Your task to perform on an android device: turn notification dots on Image 0: 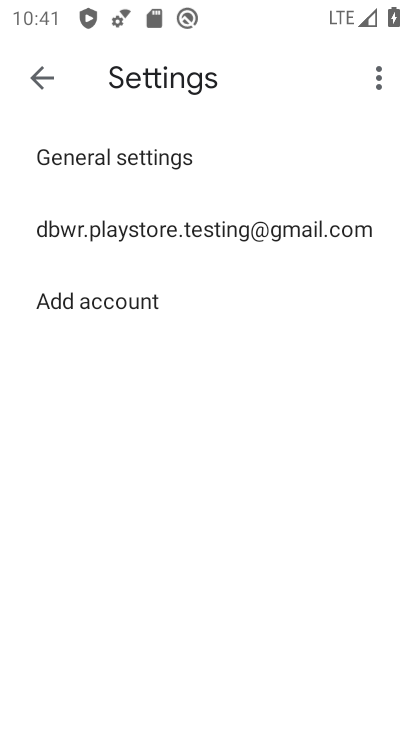
Step 0: press home button
Your task to perform on an android device: turn notification dots on Image 1: 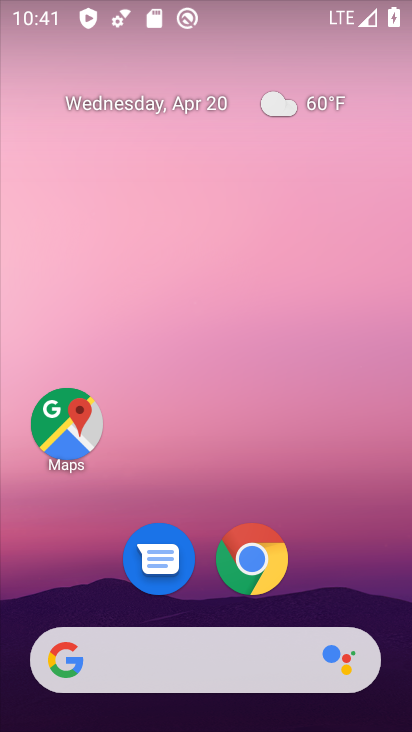
Step 1: drag from (209, 712) to (212, 33)
Your task to perform on an android device: turn notification dots on Image 2: 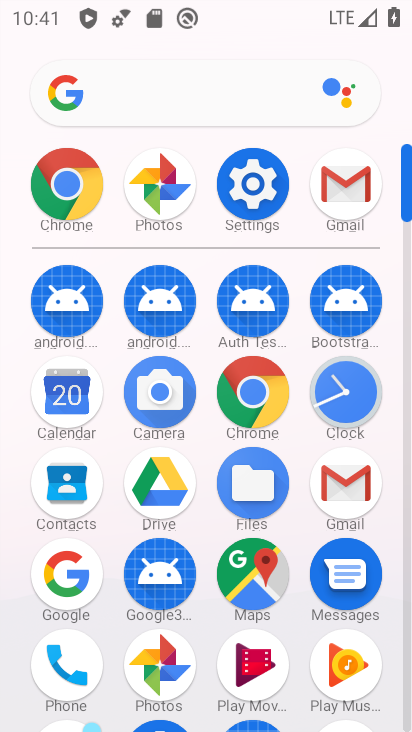
Step 2: click (252, 184)
Your task to perform on an android device: turn notification dots on Image 3: 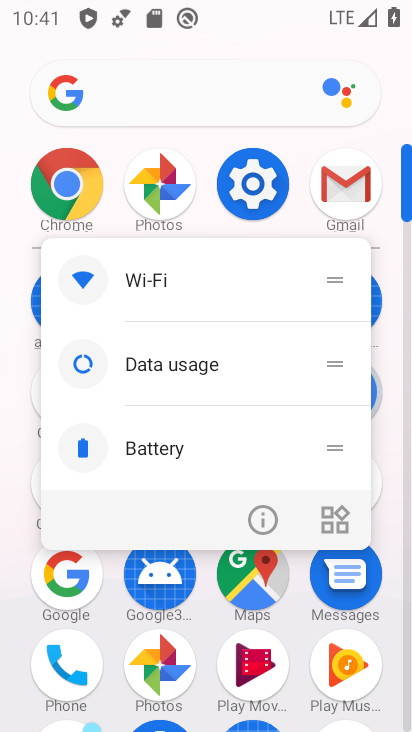
Step 3: click (253, 176)
Your task to perform on an android device: turn notification dots on Image 4: 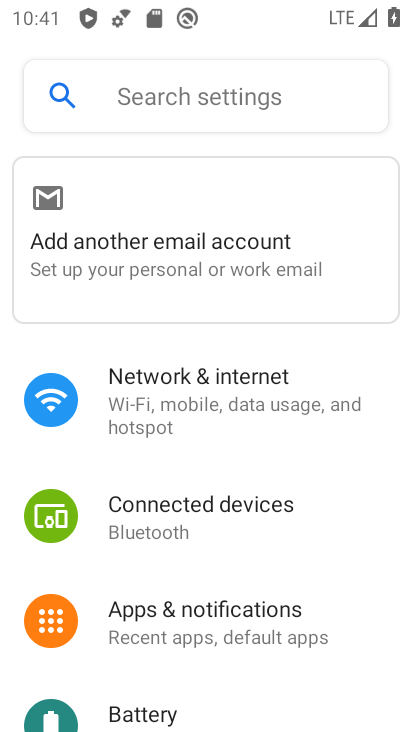
Step 4: click (210, 617)
Your task to perform on an android device: turn notification dots on Image 5: 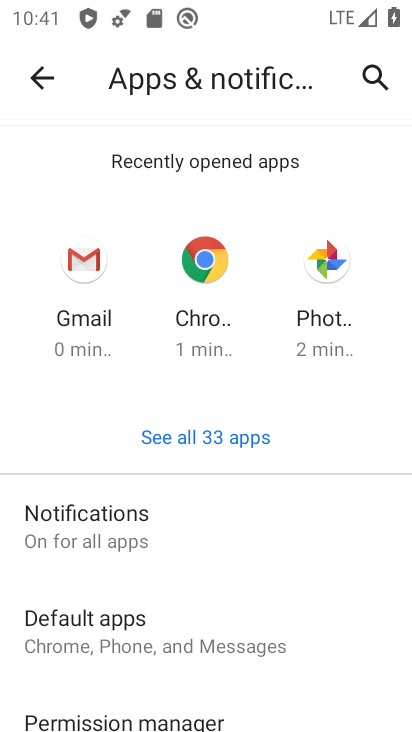
Step 5: click (106, 520)
Your task to perform on an android device: turn notification dots on Image 6: 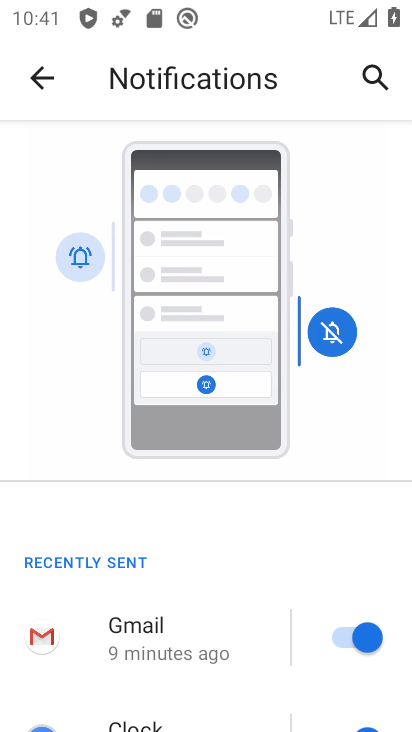
Step 6: drag from (206, 667) to (204, 257)
Your task to perform on an android device: turn notification dots on Image 7: 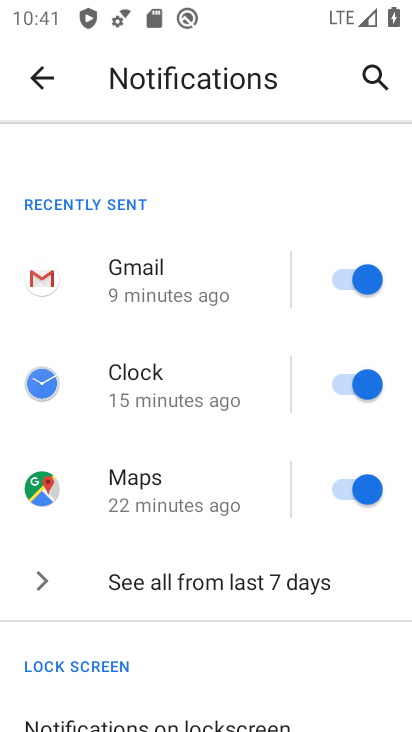
Step 7: drag from (225, 687) to (219, 281)
Your task to perform on an android device: turn notification dots on Image 8: 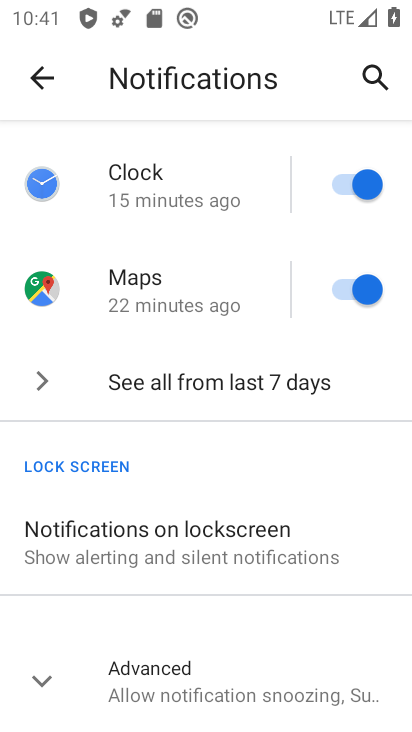
Step 8: click (173, 683)
Your task to perform on an android device: turn notification dots on Image 9: 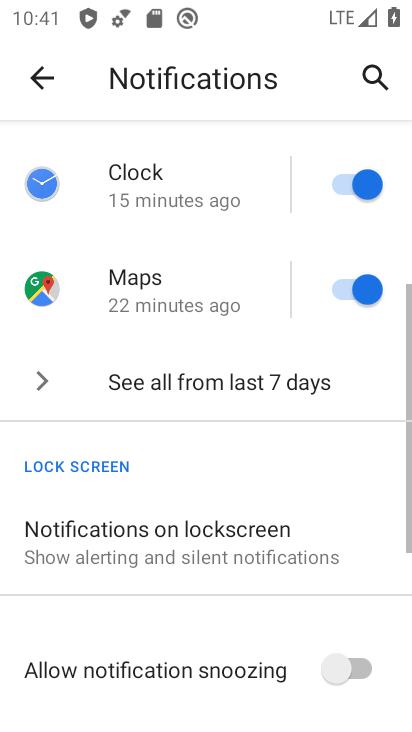
Step 9: task complete